Your task to perform on an android device: set an alarm Image 0: 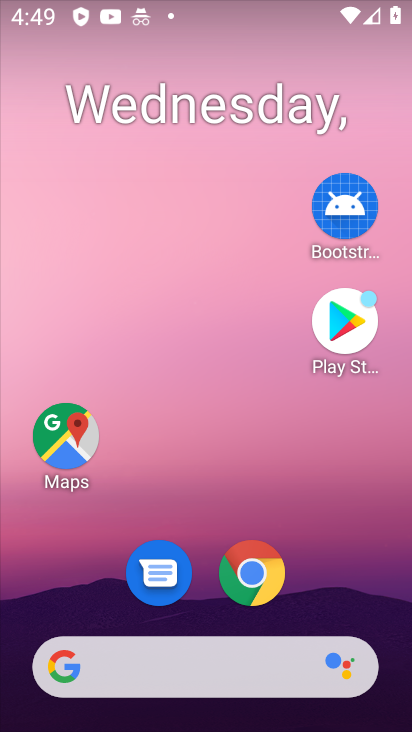
Step 0: drag from (345, 589) to (334, 114)
Your task to perform on an android device: set an alarm Image 1: 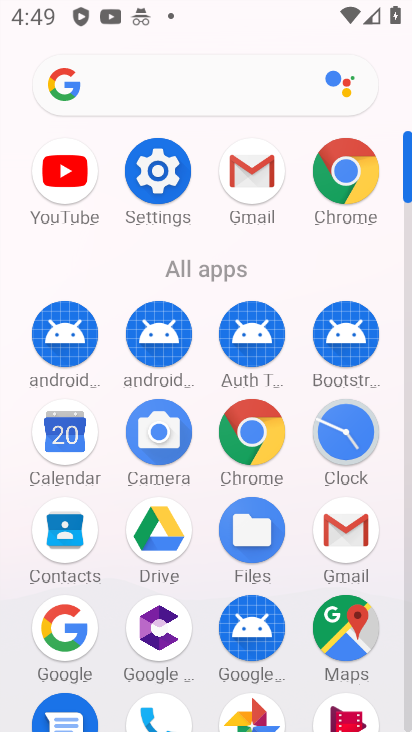
Step 1: click (331, 431)
Your task to perform on an android device: set an alarm Image 2: 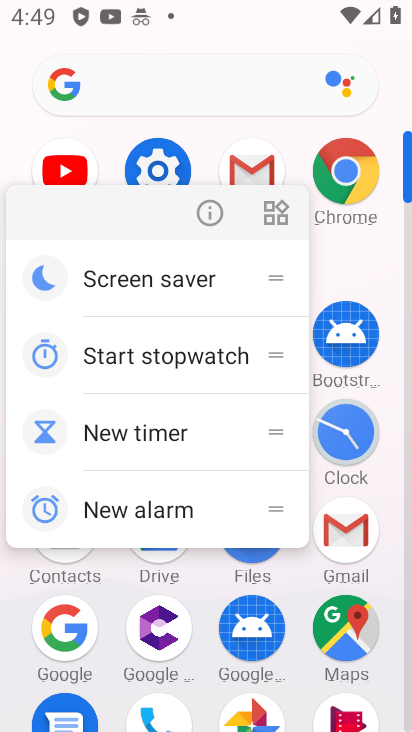
Step 2: click (330, 445)
Your task to perform on an android device: set an alarm Image 3: 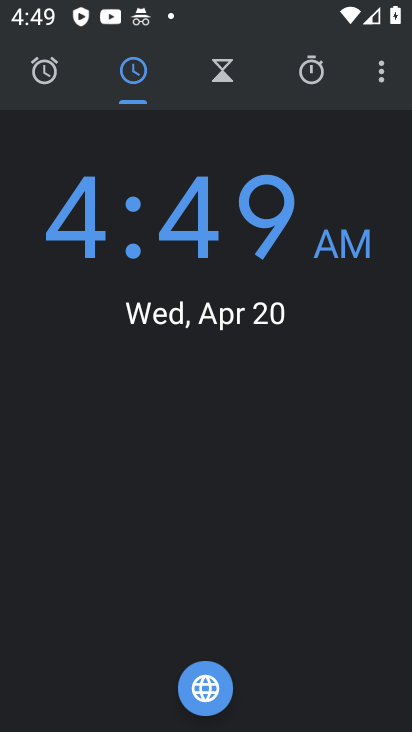
Step 3: click (376, 76)
Your task to perform on an android device: set an alarm Image 4: 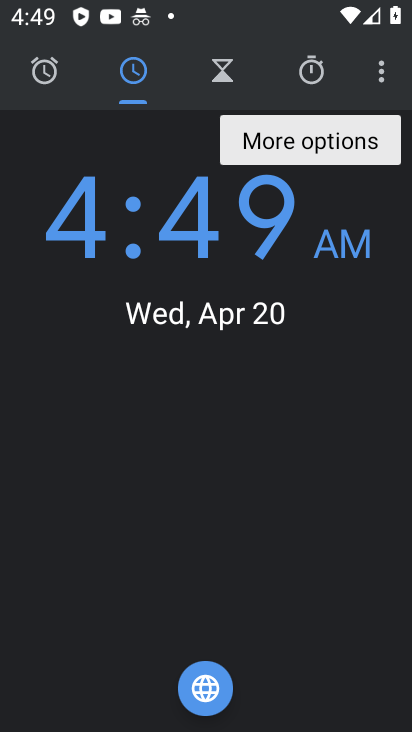
Step 4: click (46, 71)
Your task to perform on an android device: set an alarm Image 5: 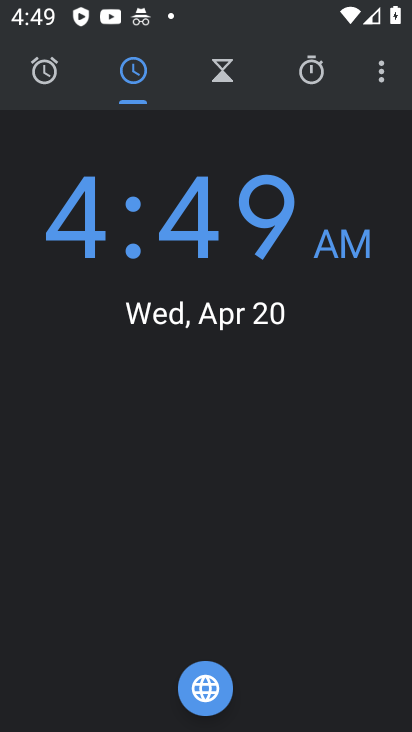
Step 5: click (41, 73)
Your task to perform on an android device: set an alarm Image 6: 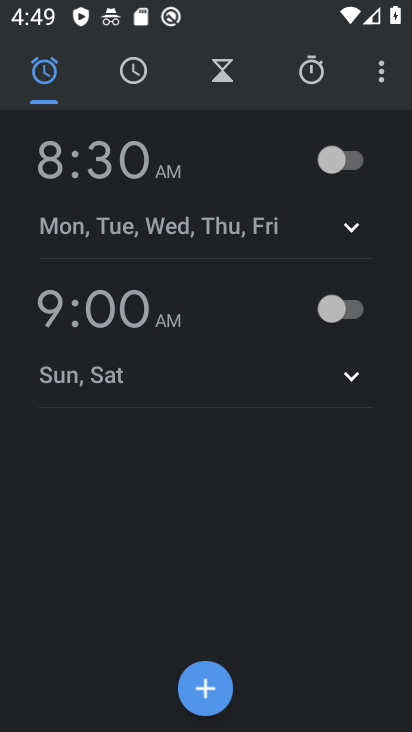
Step 6: click (158, 311)
Your task to perform on an android device: set an alarm Image 7: 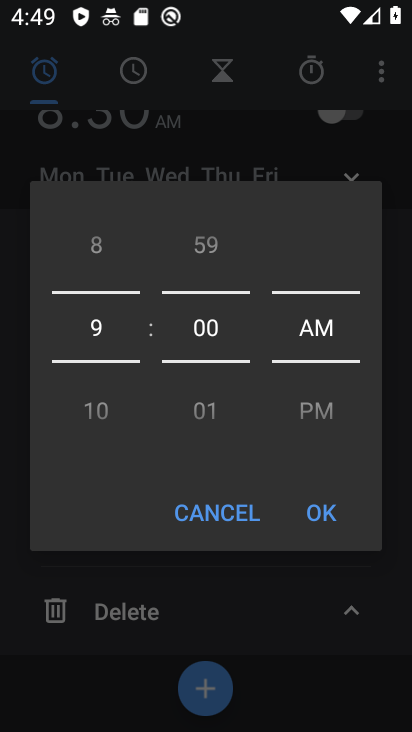
Step 7: drag from (206, 401) to (215, 315)
Your task to perform on an android device: set an alarm Image 8: 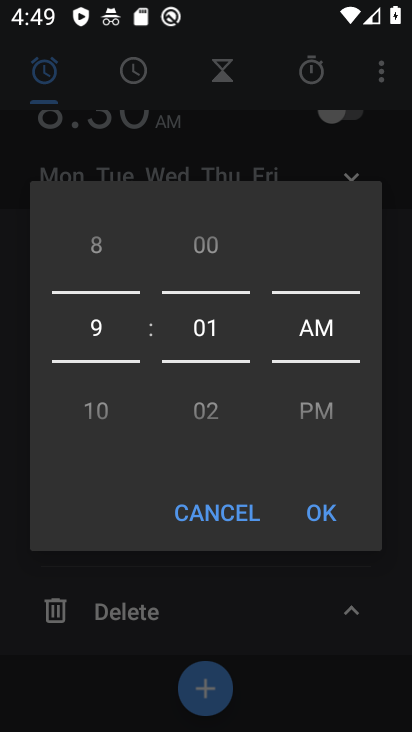
Step 8: click (329, 510)
Your task to perform on an android device: set an alarm Image 9: 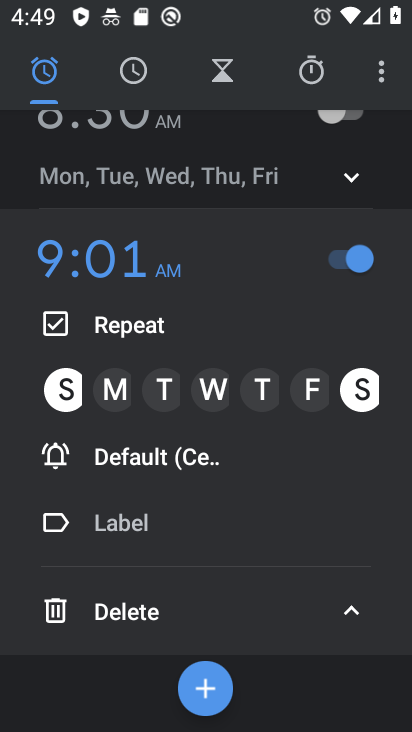
Step 9: task complete